Your task to perform on an android device: turn off location history Image 0: 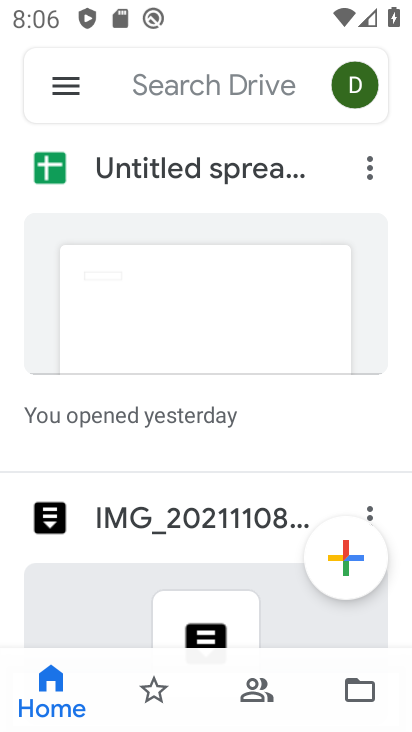
Step 0: press home button
Your task to perform on an android device: turn off location history Image 1: 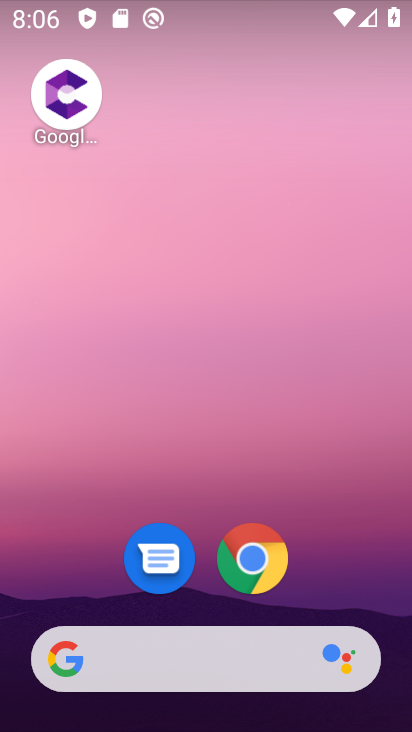
Step 1: drag from (198, 600) to (233, 182)
Your task to perform on an android device: turn off location history Image 2: 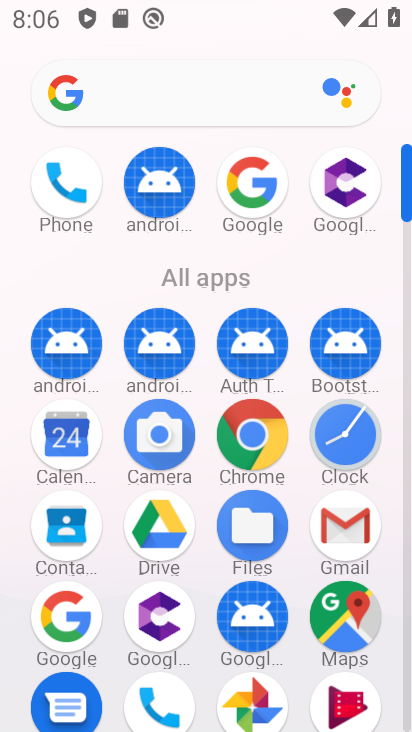
Step 2: drag from (198, 573) to (263, 187)
Your task to perform on an android device: turn off location history Image 3: 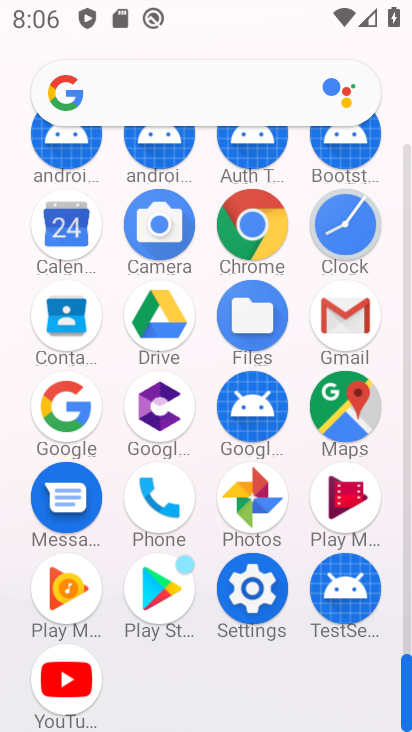
Step 3: click (267, 565)
Your task to perform on an android device: turn off location history Image 4: 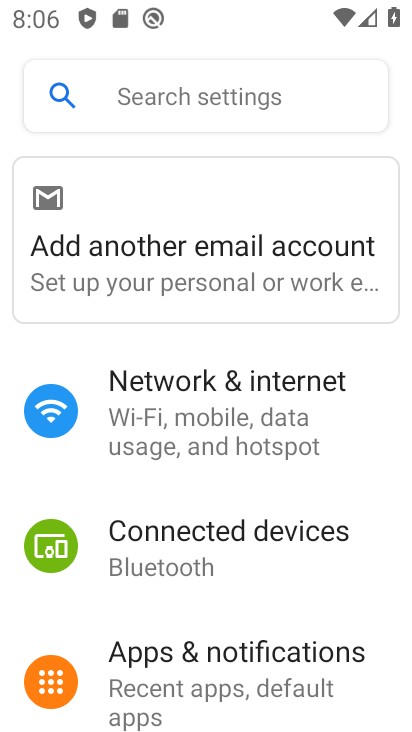
Step 4: drag from (201, 634) to (252, 354)
Your task to perform on an android device: turn off location history Image 5: 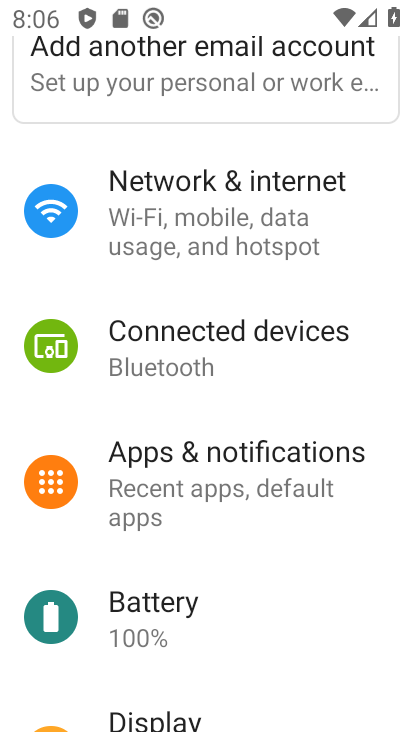
Step 5: drag from (245, 657) to (297, 286)
Your task to perform on an android device: turn off location history Image 6: 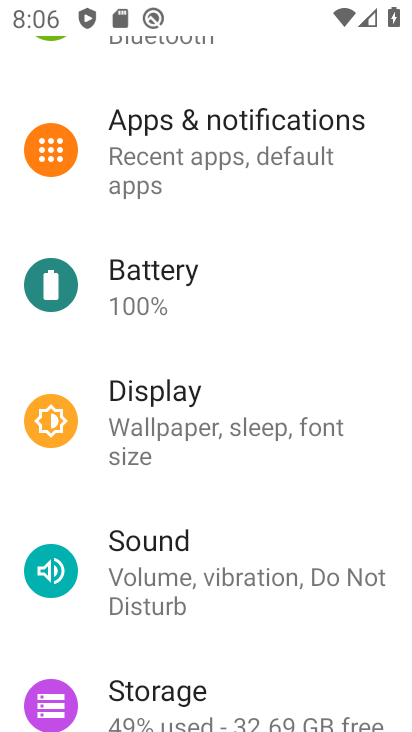
Step 6: drag from (283, 567) to (298, 316)
Your task to perform on an android device: turn off location history Image 7: 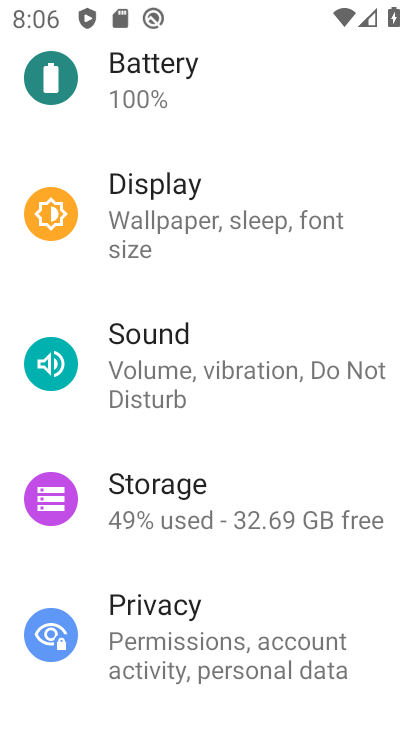
Step 7: drag from (235, 651) to (258, 348)
Your task to perform on an android device: turn off location history Image 8: 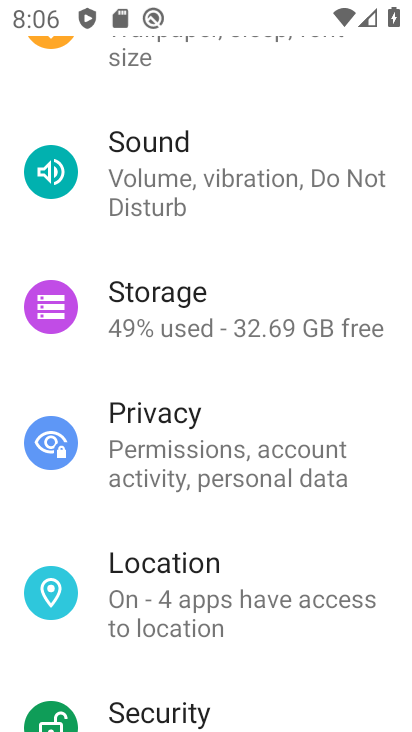
Step 8: click (195, 589)
Your task to perform on an android device: turn off location history Image 9: 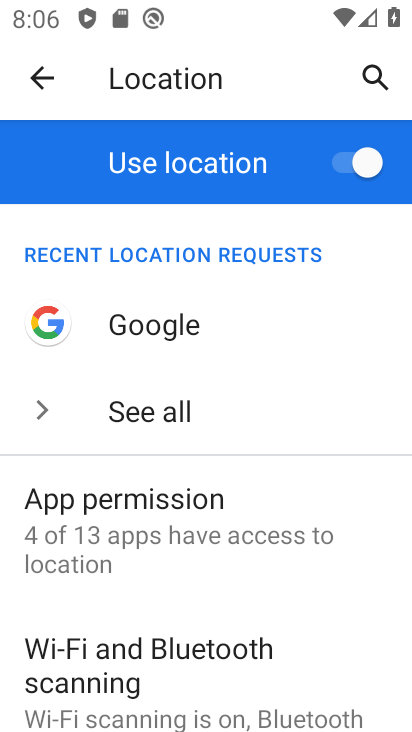
Step 9: drag from (237, 655) to (266, 520)
Your task to perform on an android device: turn off location history Image 10: 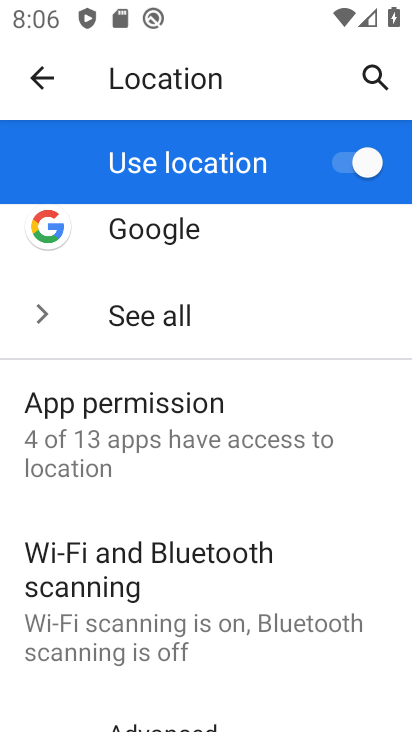
Step 10: drag from (231, 675) to (255, 415)
Your task to perform on an android device: turn off location history Image 11: 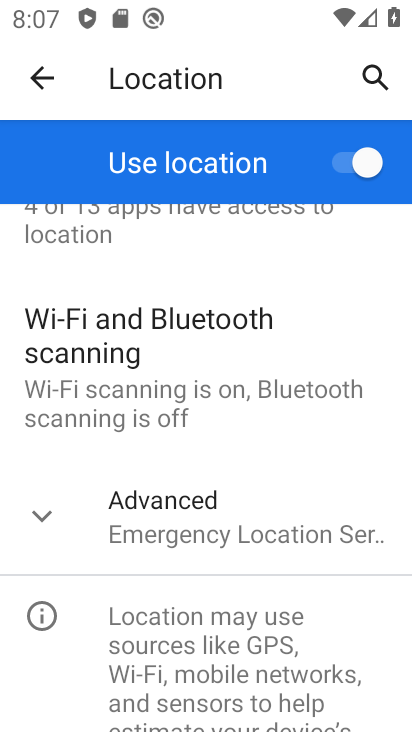
Step 11: click (200, 536)
Your task to perform on an android device: turn off location history Image 12: 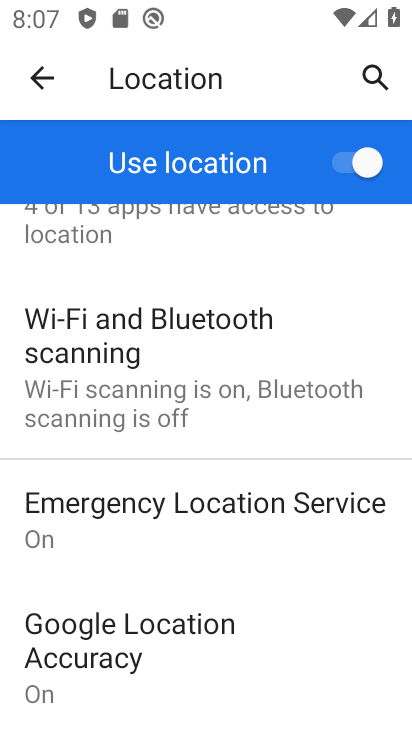
Step 12: drag from (201, 674) to (247, 470)
Your task to perform on an android device: turn off location history Image 13: 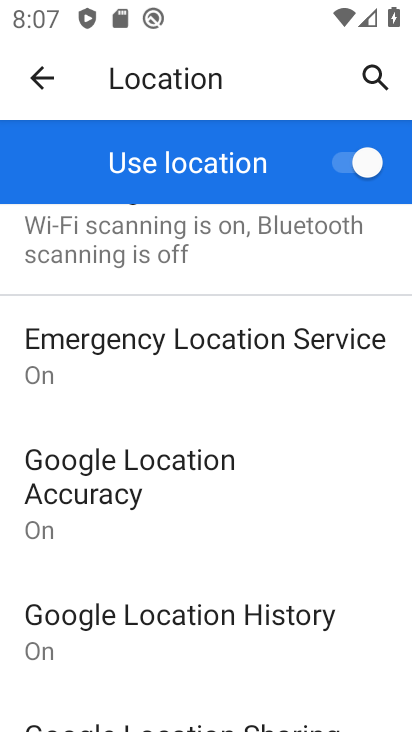
Step 13: drag from (206, 641) to (214, 479)
Your task to perform on an android device: turn off location history Image 14: 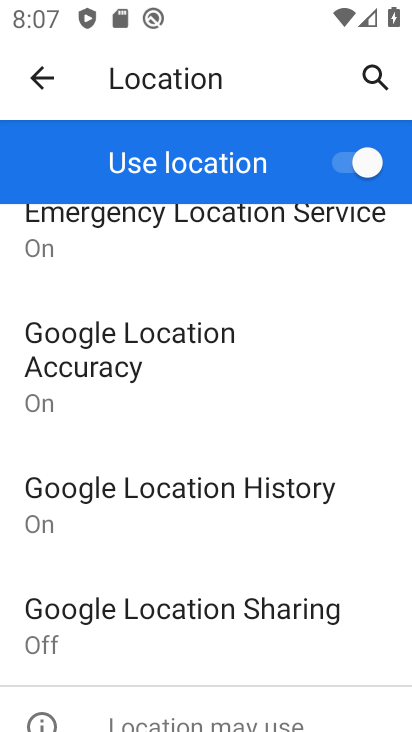
Step 14: click (202, 498)
Your task to perform on an android device: turn off location history Image 15: 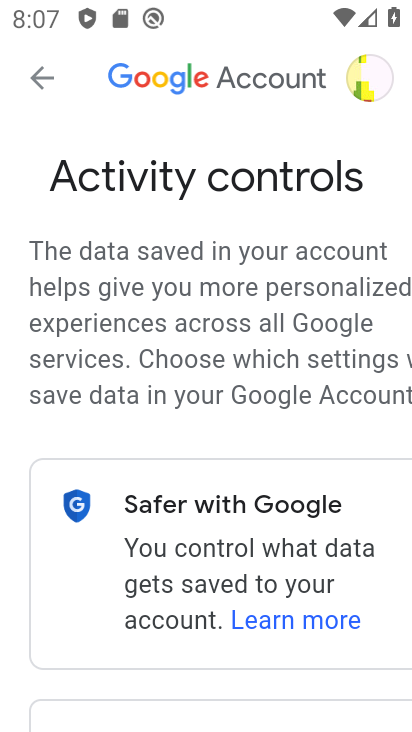
Step 15: drag from (258, 594) to (294, 284)
Your task to perform on an android device: turn off location history Image 16: 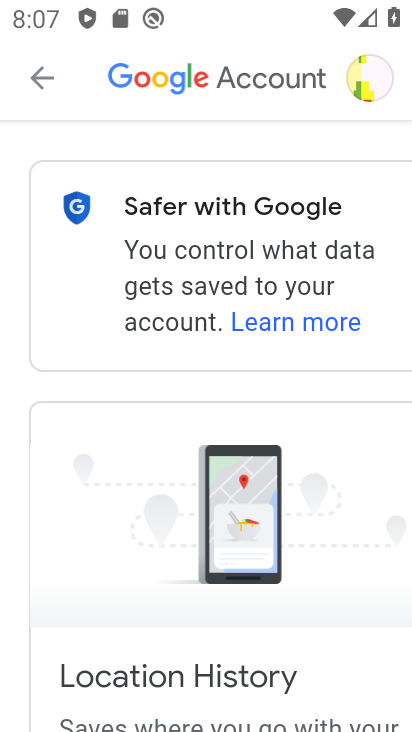
Step 16: drag from (255, 623) to (313, 269)
Your task to perform on an android device: turn off location history Image 17: 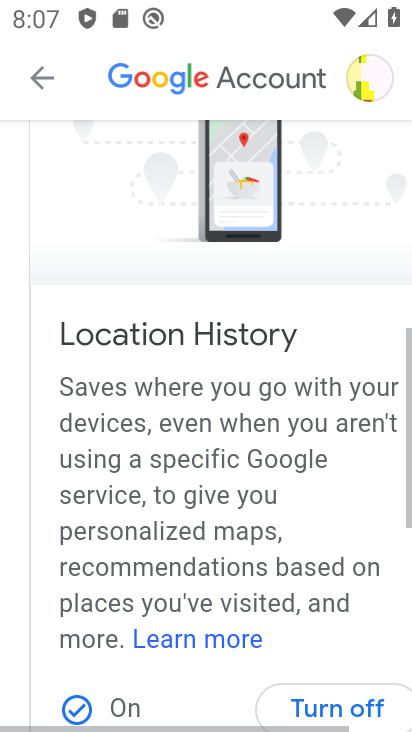
Step 17: drag from (258, 562) to (278, 366)
Your task to perform on an android device: turn off location history Image 18: 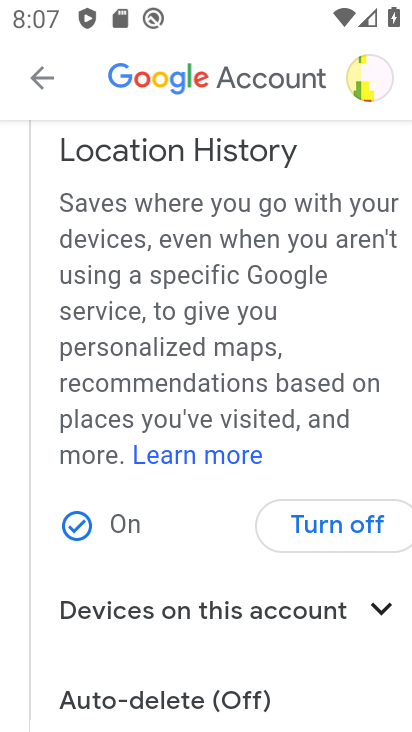
Step 18: click (306, 519)
Your task to perform on an android device: turn off location history Image 19: 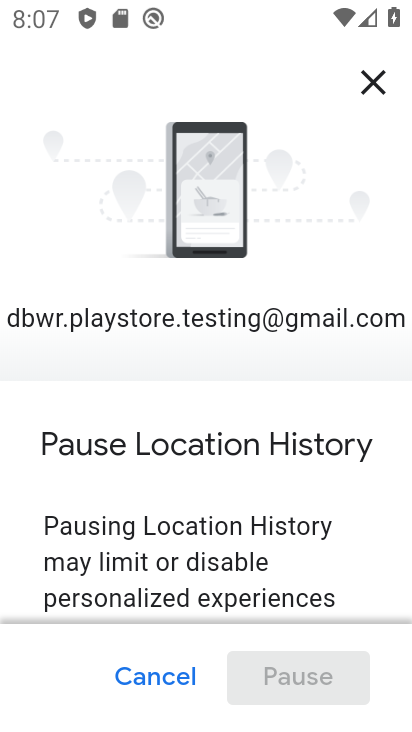
Step 19: drag from (293, 614) to (293, 345)
Your task to perform on an android device: turn off location history Image 20: 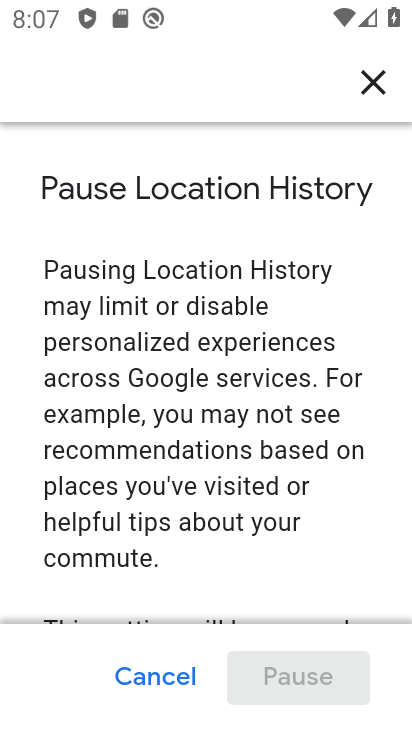
Step 20: drag from (279, 587) to (321, 323)
Your task to perform on an android device: turn off location history Image 21: 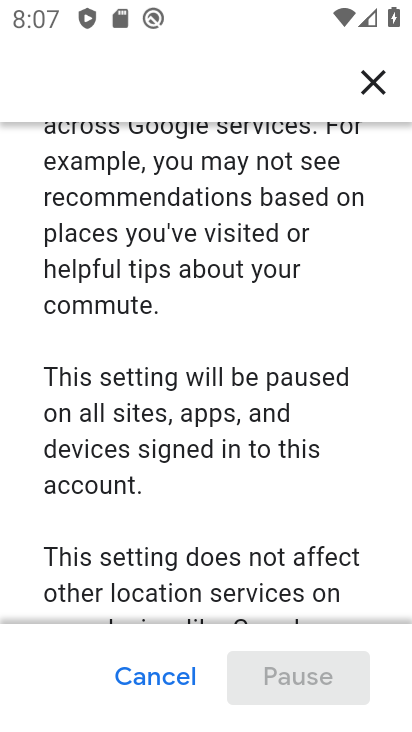
Step 21: drag from (255, 578) to (286, 269)
Your task to perform on an android device: turn off location history Image 22: 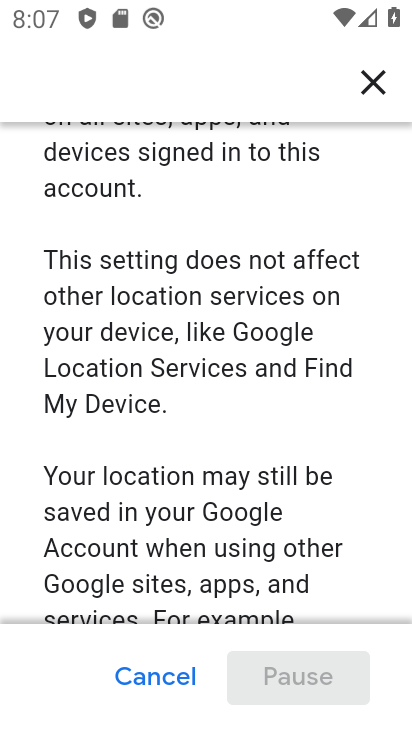
Step 22: drag from (256, 562) to (282, 283)
Your task to perform on an android device: turn off location history Image 23: 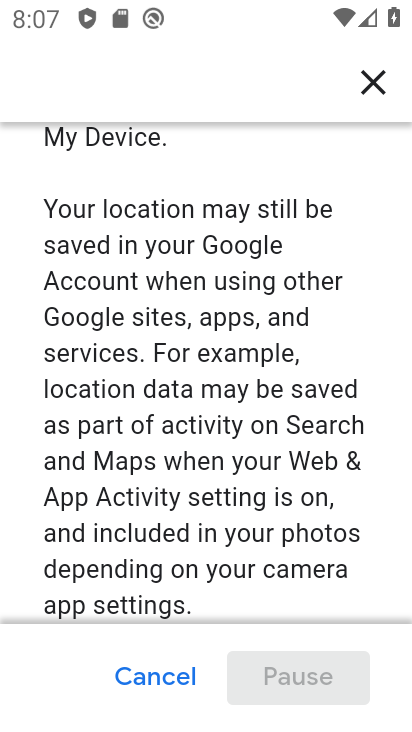
Step 23: drag from (288, 587) to (303, 286)
Your task to perform on an android device: turn off location history Image 24: 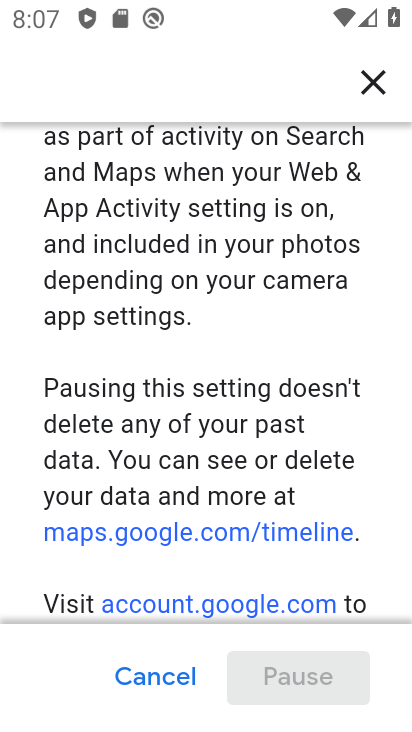
Step 24: drag from (308, 559) to (298, 286)
Your task to perform on an android device: turn off location history Image 25: 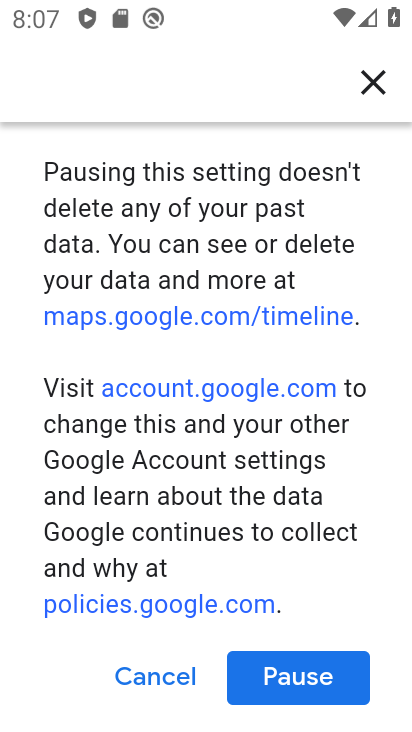
Step 25: drag from (306, 532) to (306, 313)
Your task to perform on an android device: turn off location history Image 26: 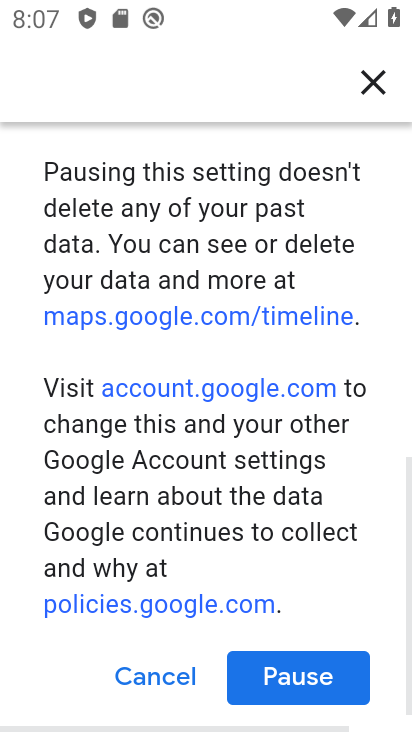
Step 26: click (282, 656)
Your task to perform on an android device: turn off location history Image 27: 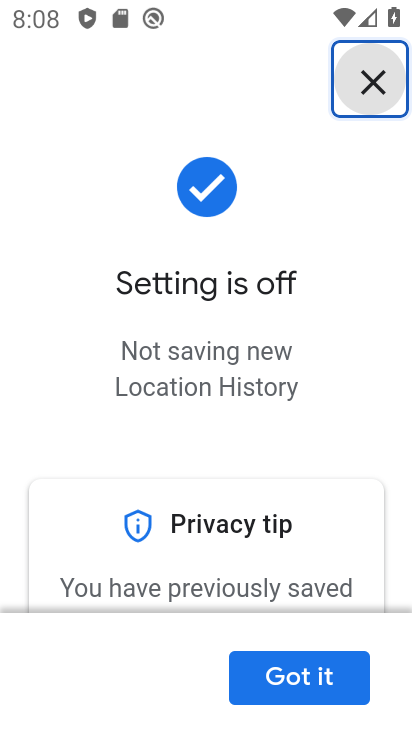
Step 27: task complete